Your task to perform on an android device: add a label to a message in the gmail app Image 0: 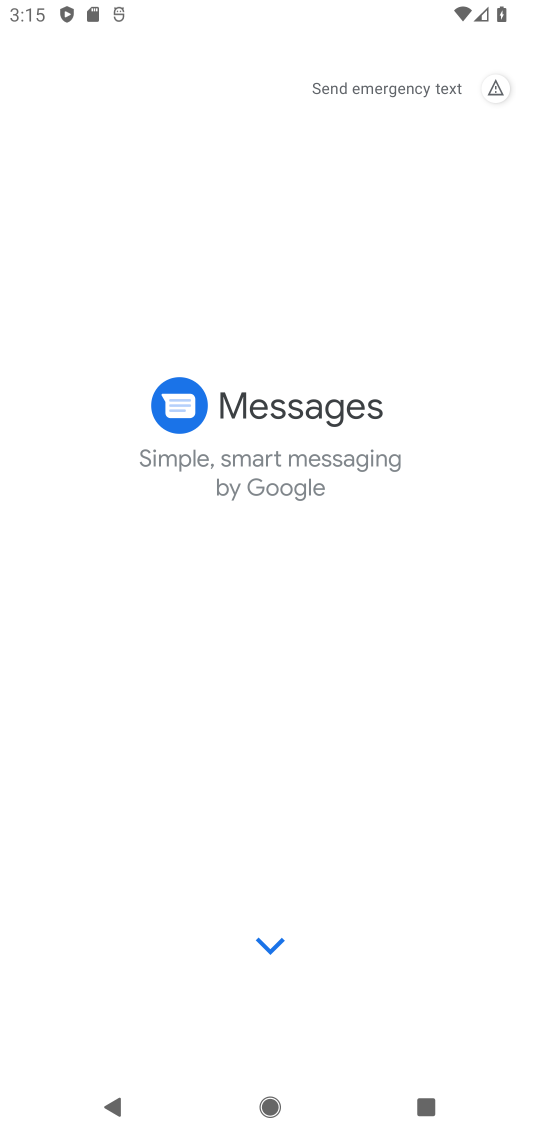
Step 0: press home button
Your task to perform on an android device: add a label to a message in the gmail app Image 1: 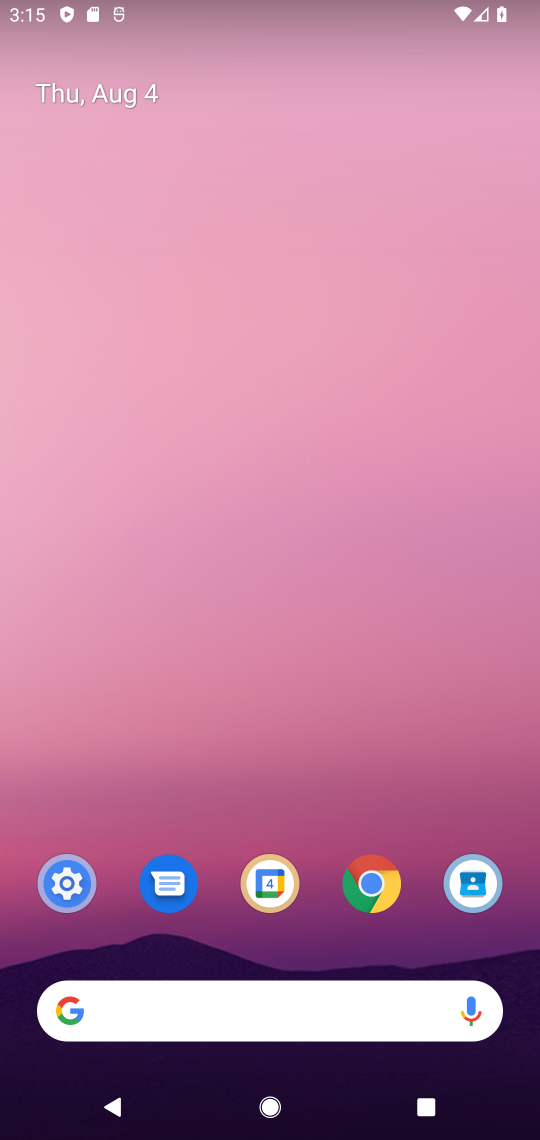
Step 1: drag from (497, 891) to (312, 91)
Your task to perform on an android device: add a label to a message in the gmail app Image 2: 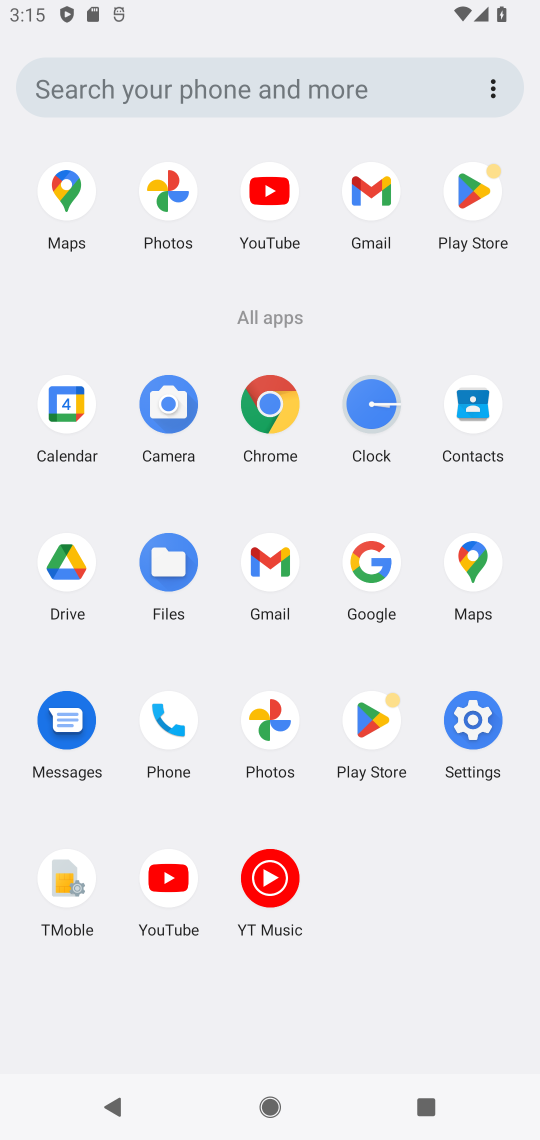
Step 2: click (278, 574)
Your task to perform on an android device: add a label to a message in the gmail app Image 3: 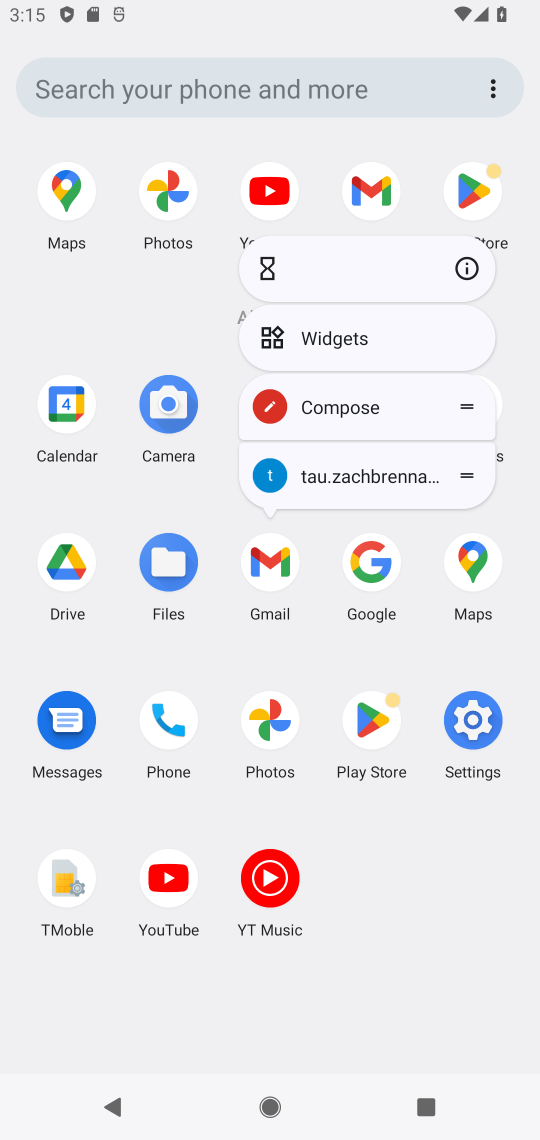
Step 3: click (278, 574)
Your task to perform on an android device: add a label to a message in the gmail app Image 4: 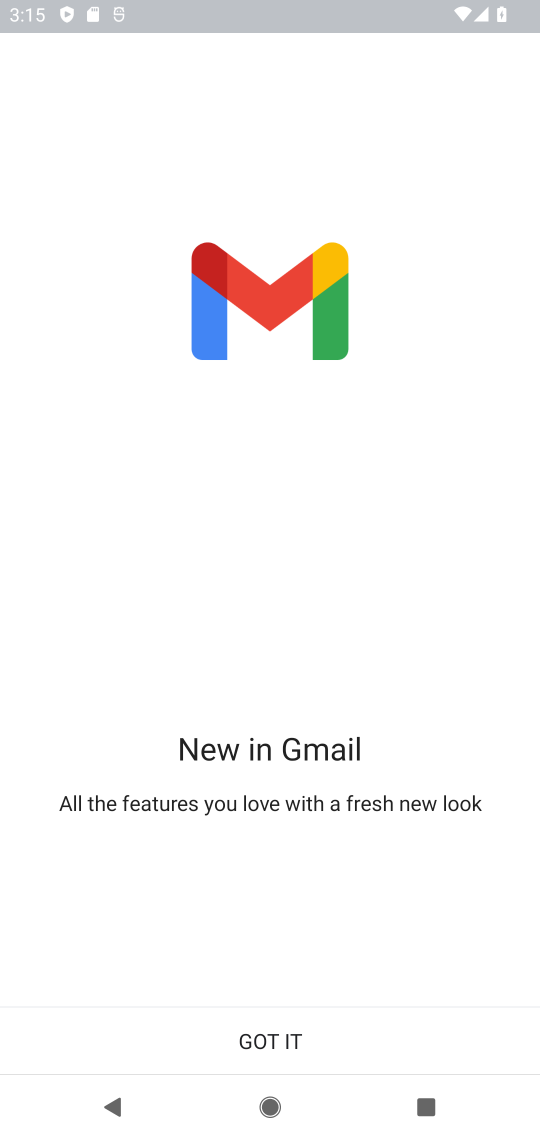
Step 4: click (339, 1012)
Your task to perform on an android device: add a label to a message in the gmail app Image 5: 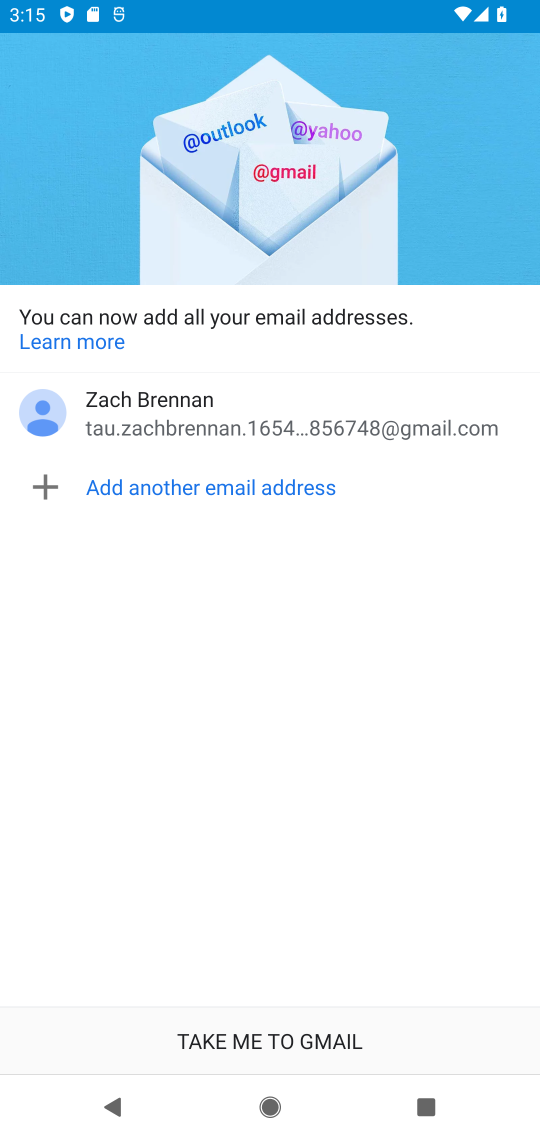
Step 5: click (294, 1038)
Your task to perform on an android device: add a label to a message in the gmail app Image 6: 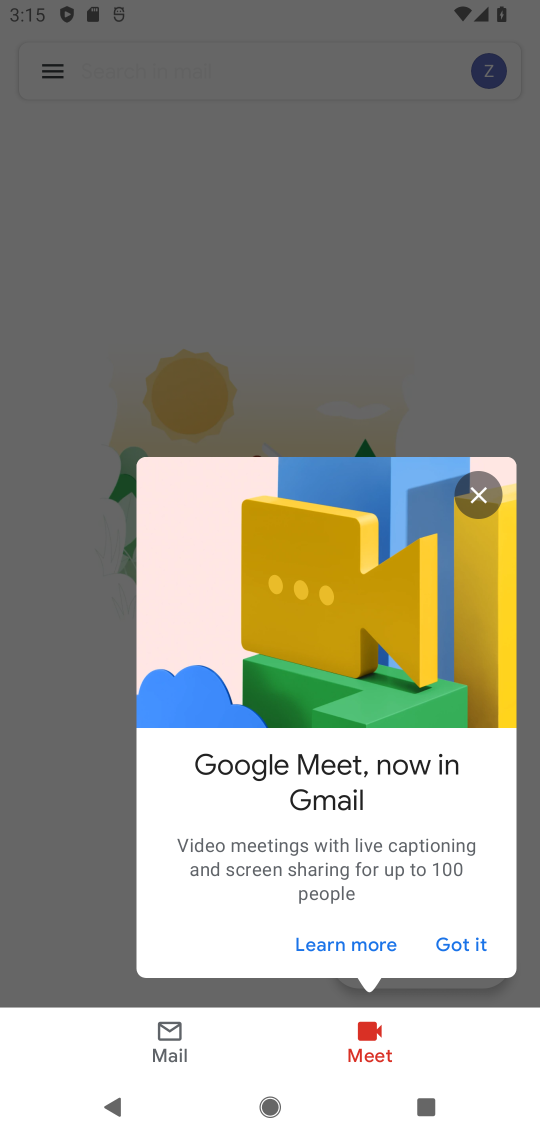
Step 6: click (468, 932)
Your task to perform on an android device: add a label to a message in the gmail app Image 7: 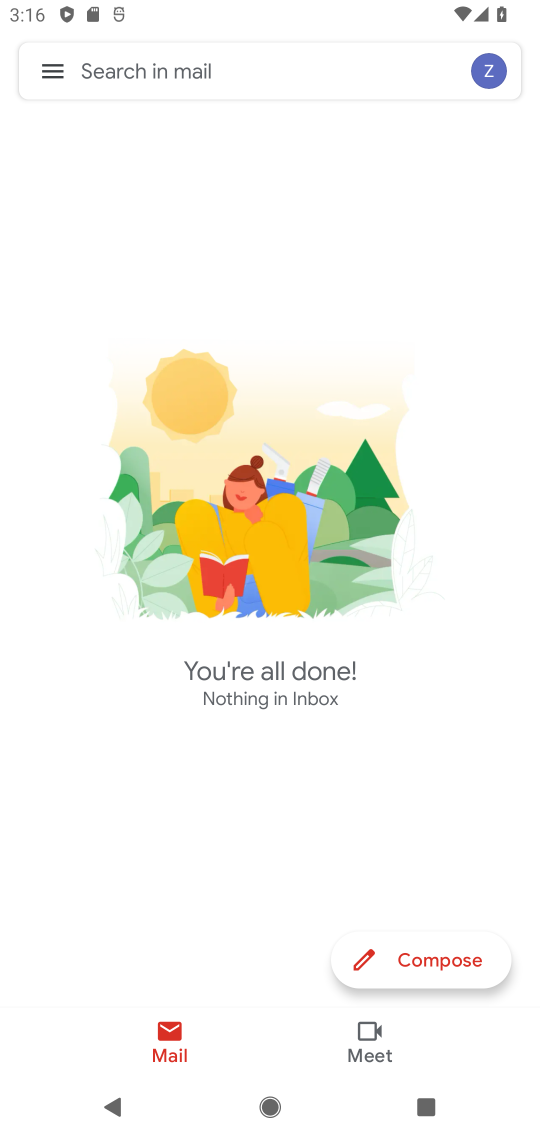
Step 7: task complete